Your task to perform on an android device: Search for seafood restaurants on Google Maps Image 0: 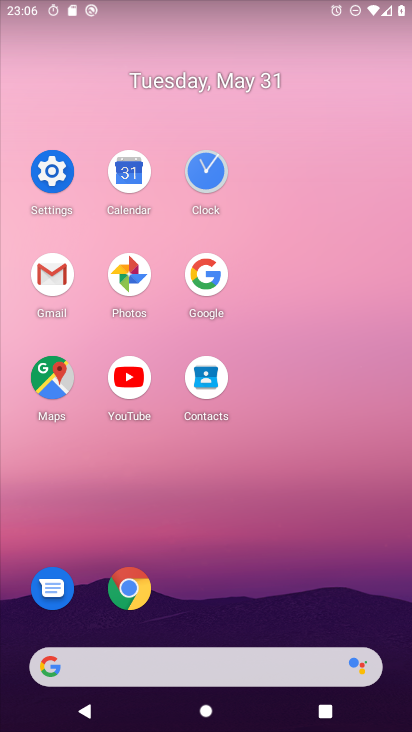
Step 0: click (52, 375)
Your task to perform on an android device: Search for seafood restaurants on Google Maps Image 1: 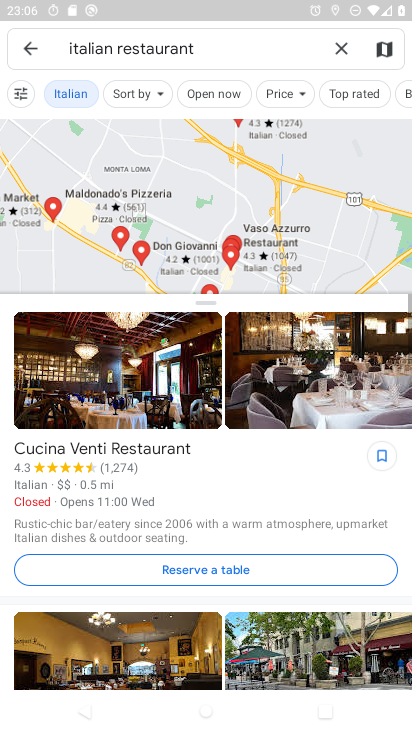
Step 1: click (342, 48)
Your task to perform on an android device: Search for seafood restaurants on Google Maps Image 2: 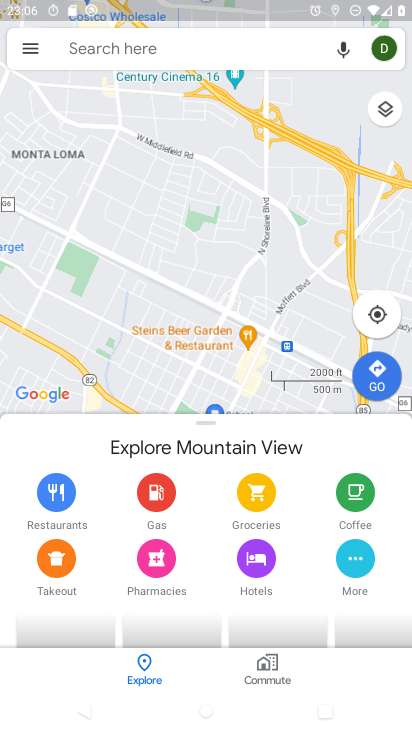
Step 2: click (205, 40)
Your task to perform on an android device: Search for seafood restaurants on Google Maps Image 3: 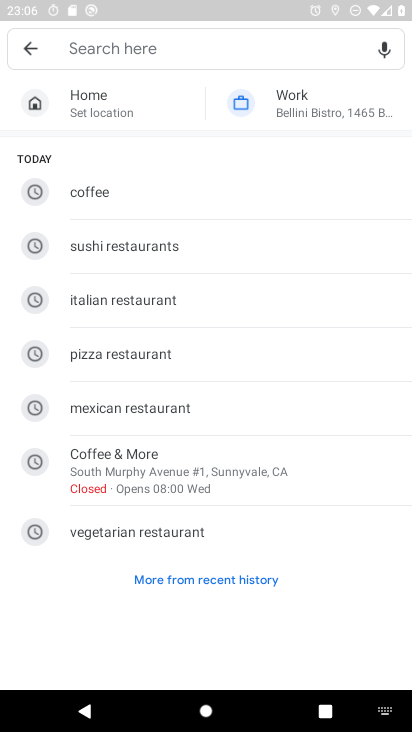
Step 3: type "seafood restaurants"
Your task to perform on an android device: Search for seafood restaurants on Google Maps Image 4: 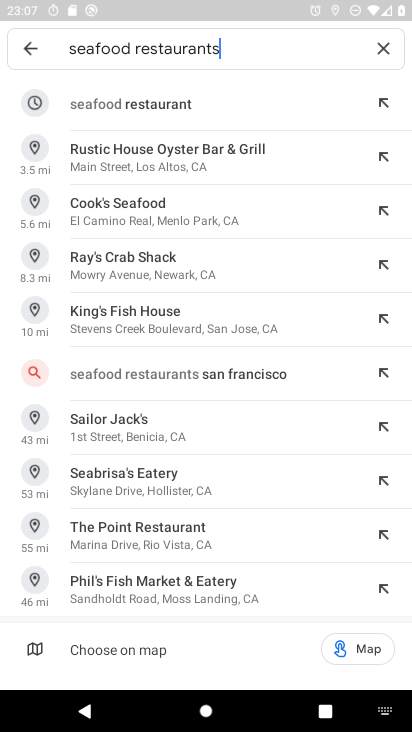
Step 4: task complete